Your task to perform on an android device: Open the Play Movies app and select the watchlist tab. Image 0: 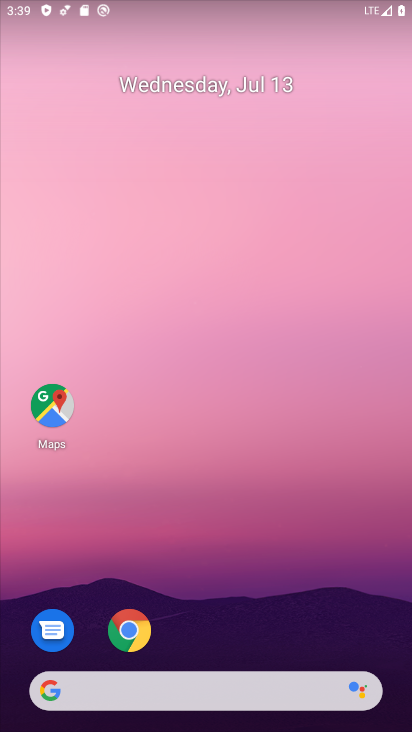
Step 0: drag from (245, 612) to (216, 209)
Your task to perform on an android device: Open the Play Movies app and select the watchlist tab. Image 1: 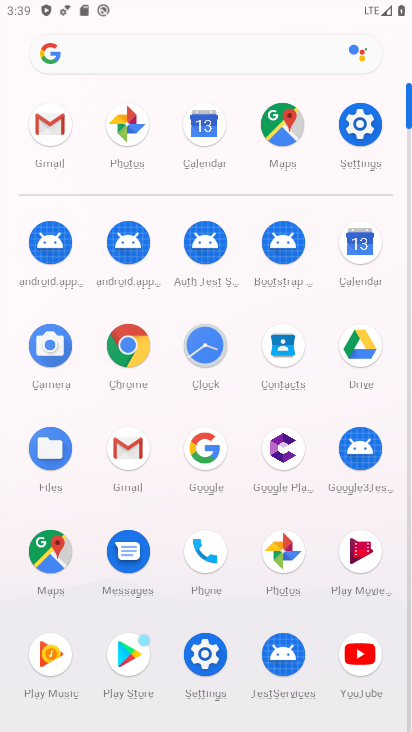
Step 1: click (355, 557)
Your task to perform on an android device: Open the Play Movies app and select the watchlist tab. Image 2: 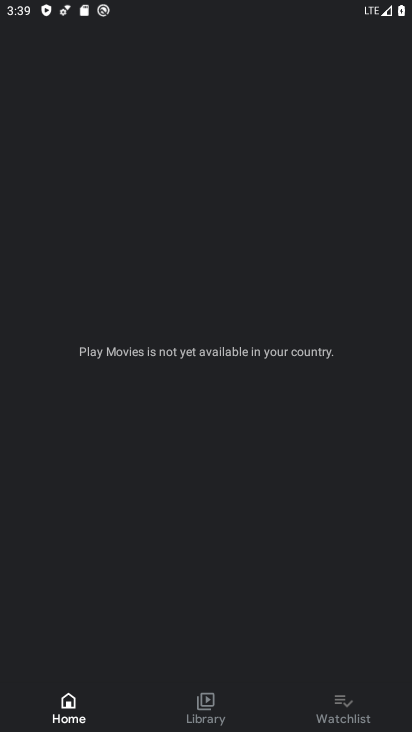
Step 2: task complete